Your task to perform on an android device: open app "Lyft - Rideshare, Bikes, Scooters & Transit" Image 0: 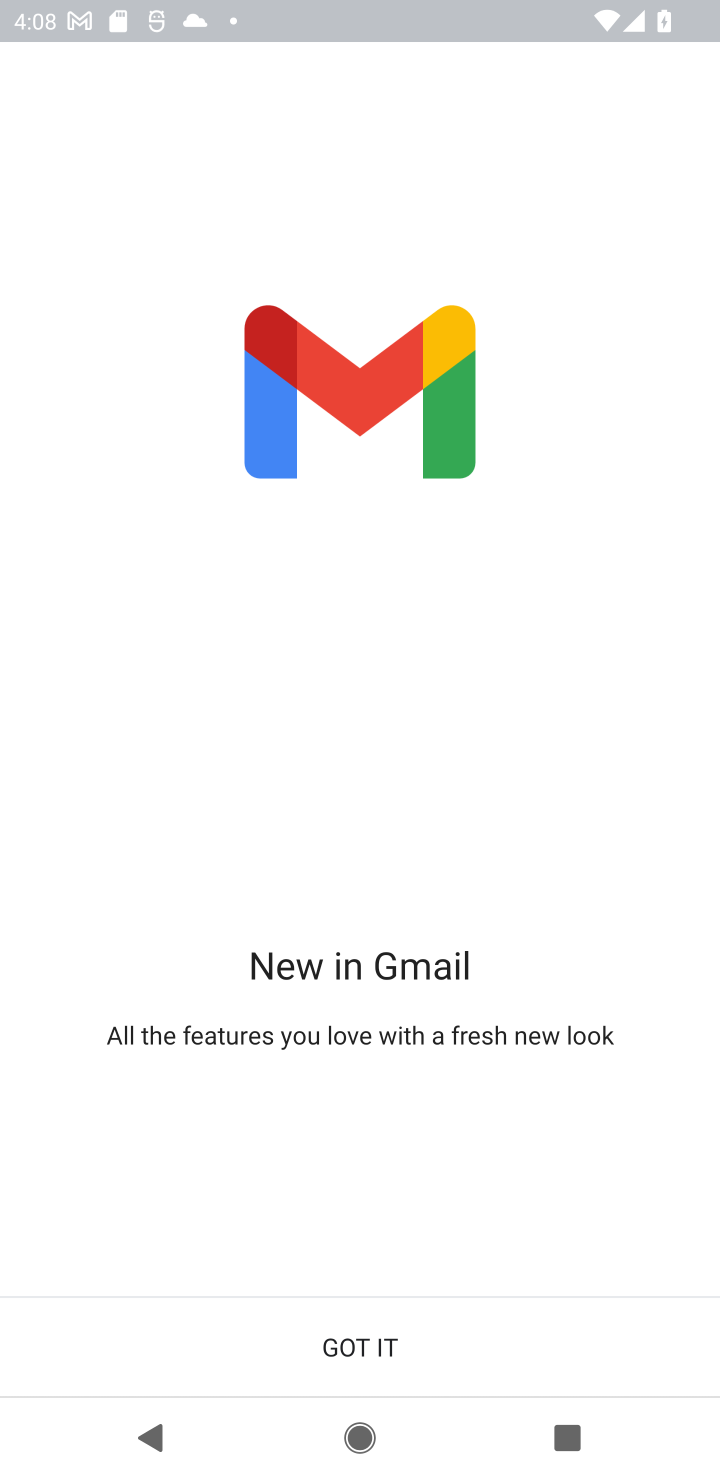
Step 0: press home button
Your task to perform on an android device: open app "Lyft - Rideshare, Bikes, Scooters & Transit" Image 1: 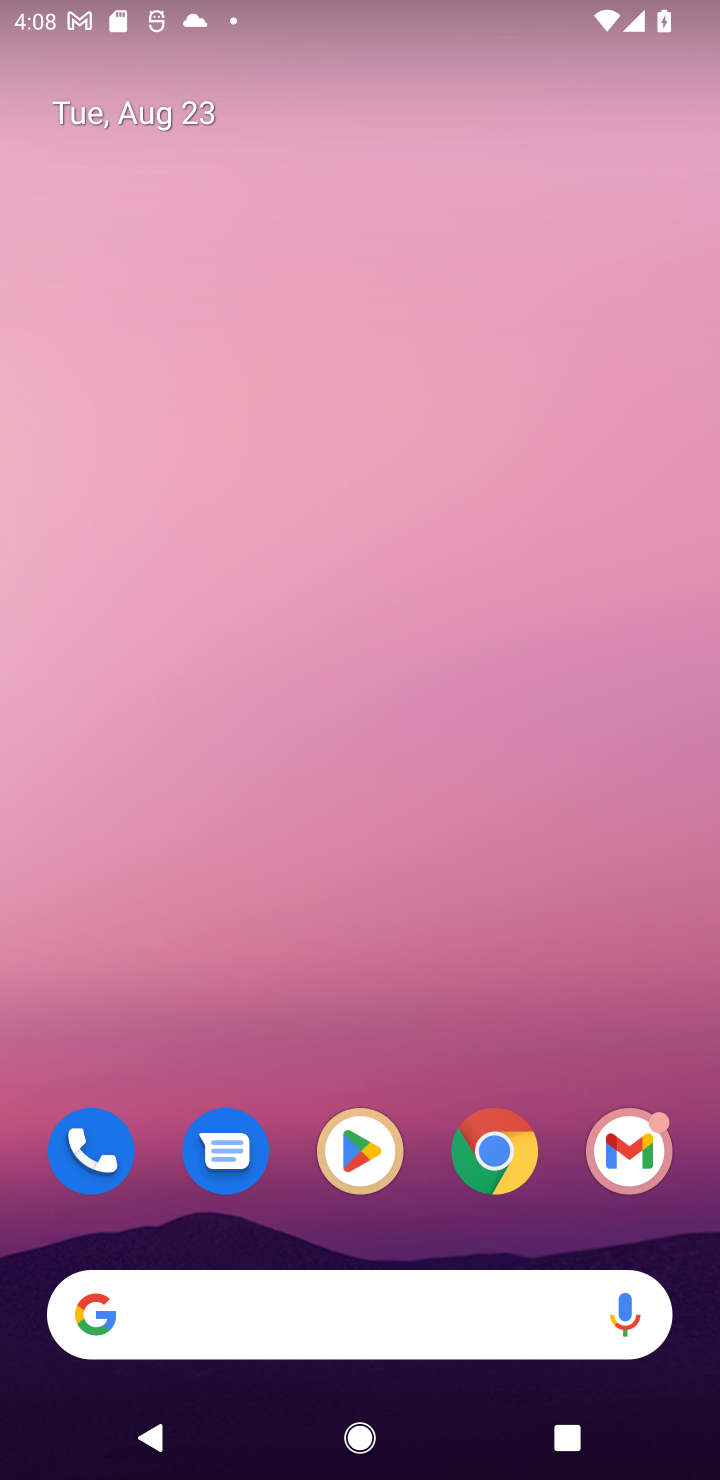
Step 1: click (373, 1146)
Your task to perform on an android device: open app "Lyft - Rideshare, Bikes, Scooters & Transit" Image 2: 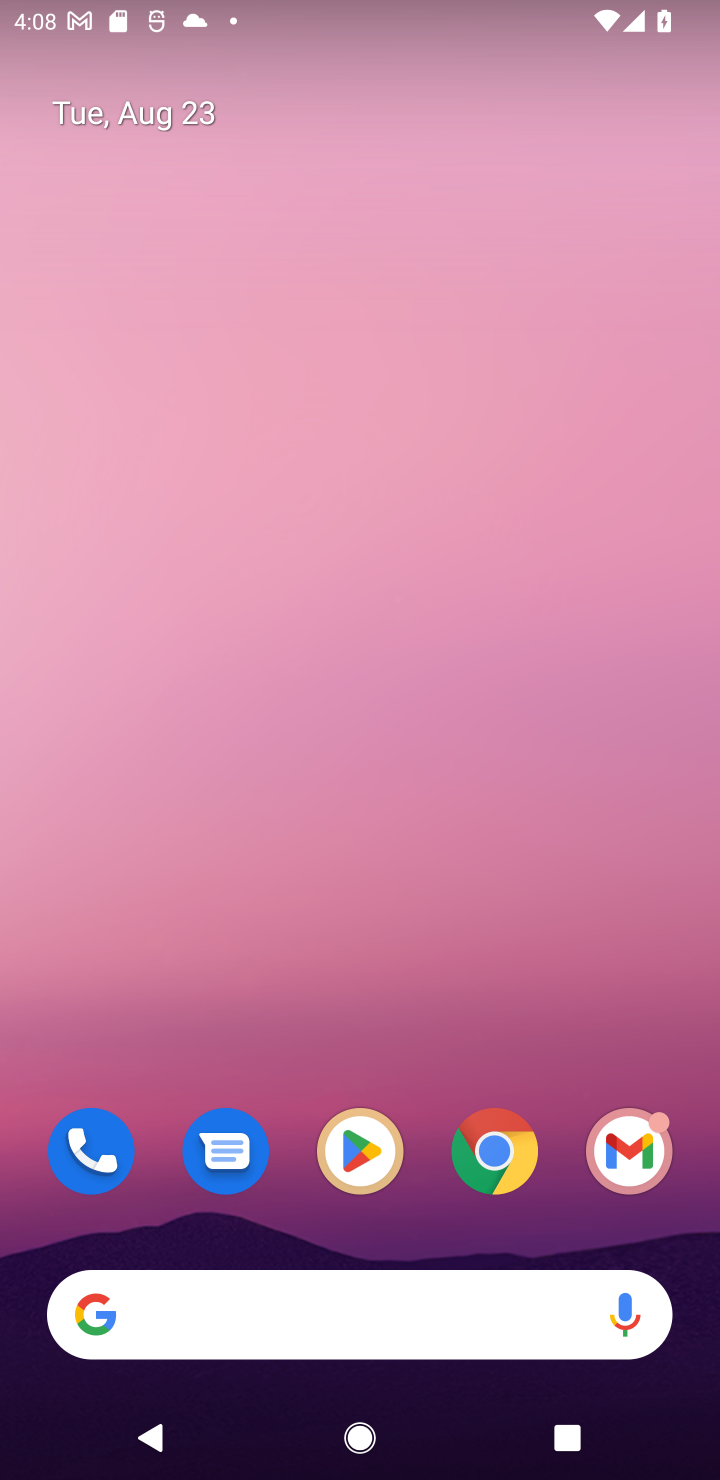
Step 2: click (373, 1146)
Your task to perform on an android device: open app "Lyft - Rideshare, Bikes, Scooters & Transit" Image 3: 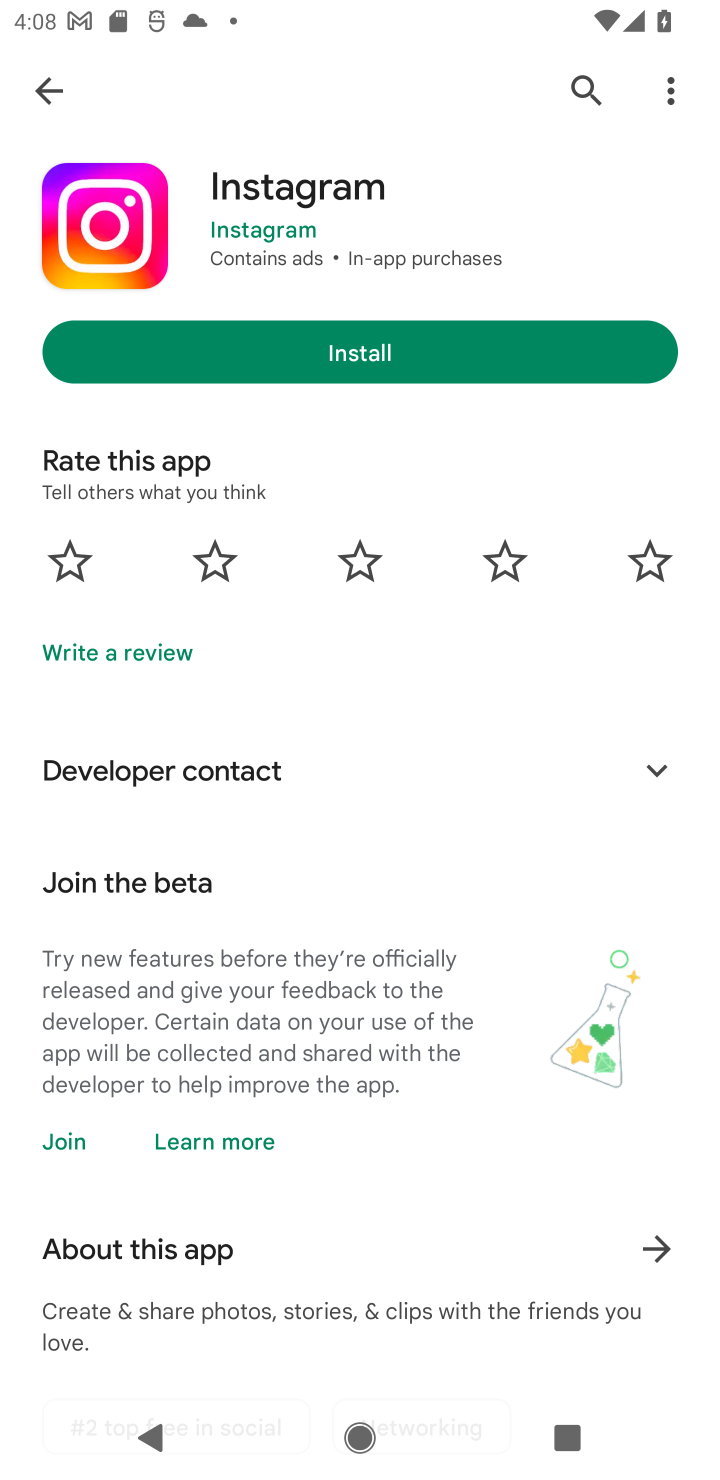
Step 3: click (580, 79)
Your task to perform on an android device: open app "Lyft - Rideshare, Bikes, Scooters & Transit" Image 4: 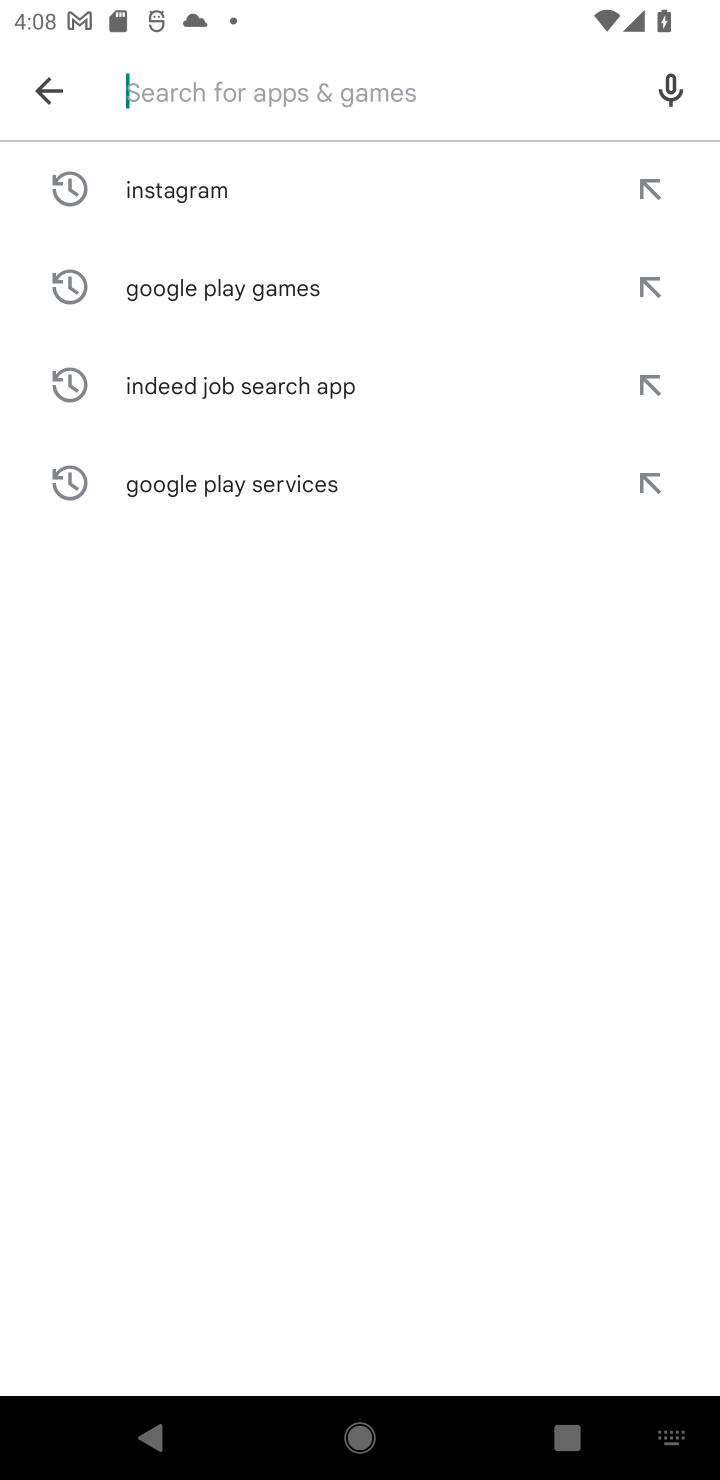
Step 4: type "Lyft Rideshare, Bikes, Scooters & Transit"
Your task to perform on an android device: open app "Lyft - Rideshare, Bikes, Scooters & Transit" Image 5: 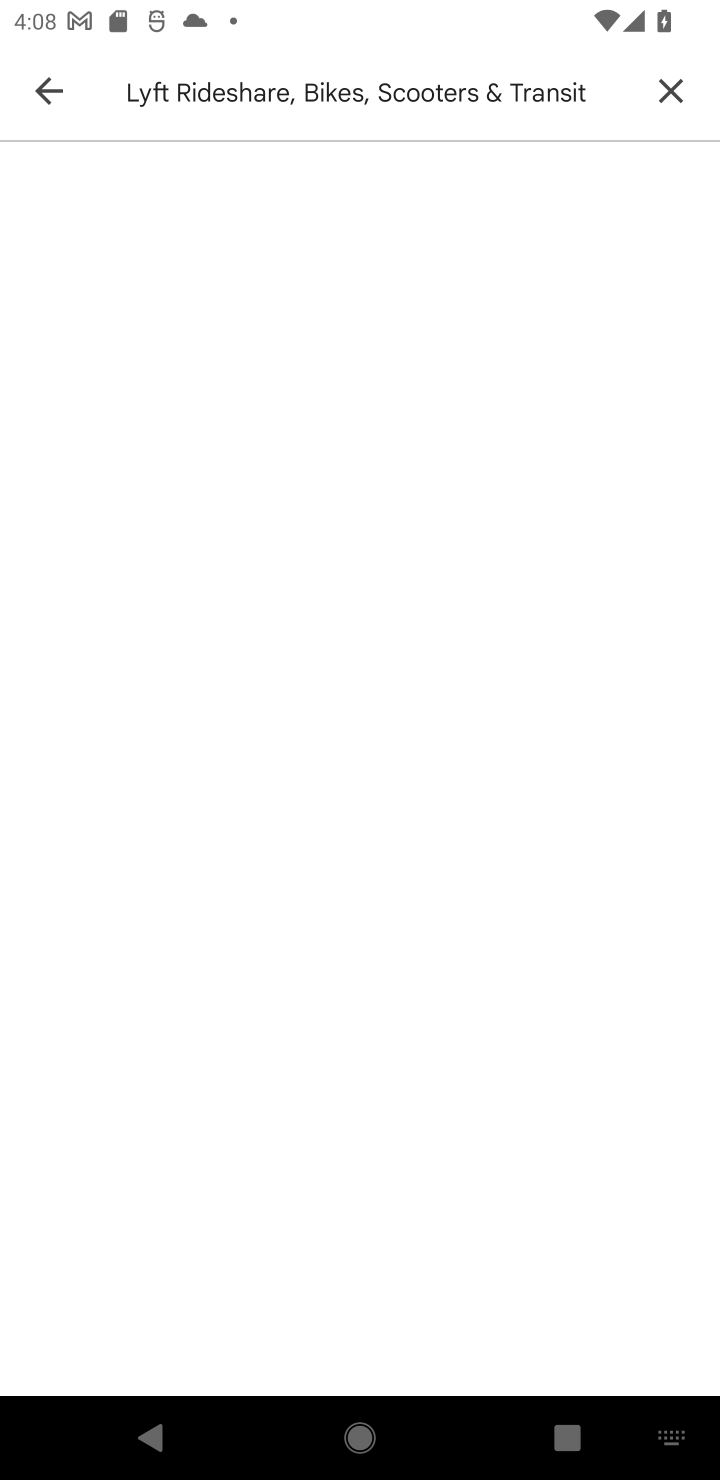
Step 5: task complete